Your task to perform on an android device: delete a single message in the gmail app Image 0: 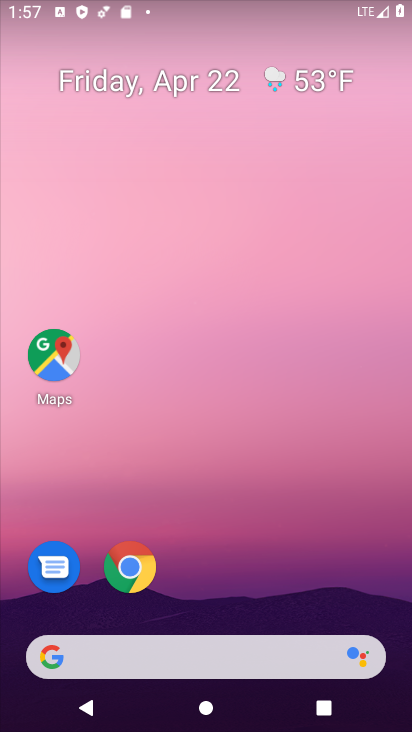
Step 0: drag from (270, 607) to (203, 74)
Your task to perform on an android device: delete a single message in the gmail app Image 1: 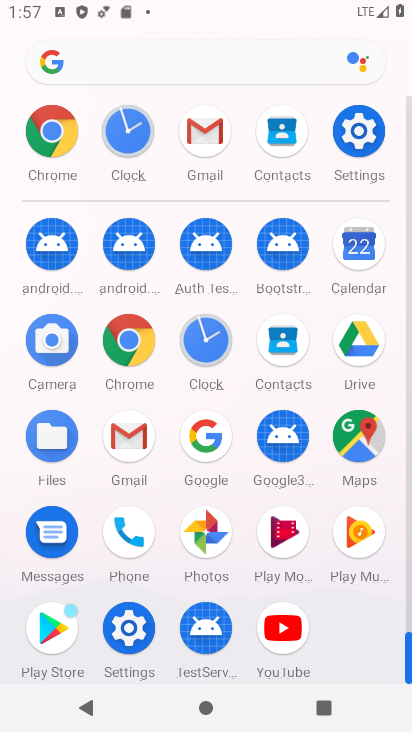
Step 1: click (128, 434)
Your task to perform on an android device: delete a single message in the gmail app Image 2: 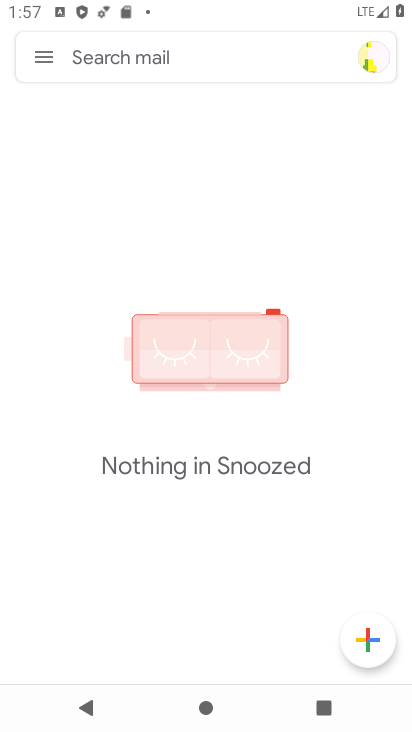
Step 2: click (45, 59)
Your task to perform on an android device: delete a single message in the gmail app Image 3: 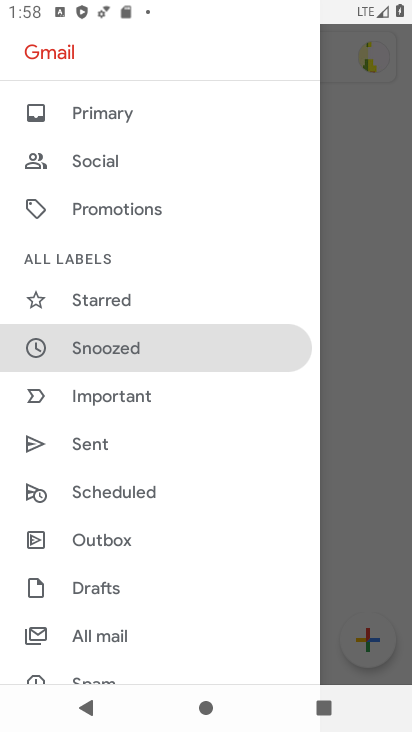
Step 3: click (117, 635)
Your task to perform on an android device: delete a single message in the gmail app Image 4: 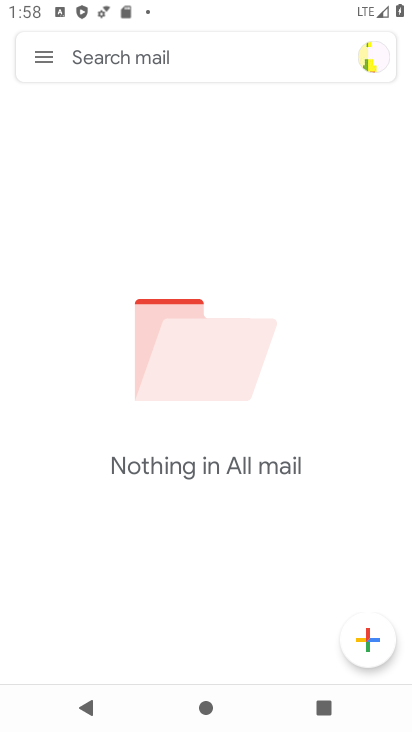
Step 4: task complete